Your task to perform on an android device: Show me popular games on the Play Store Image 0: 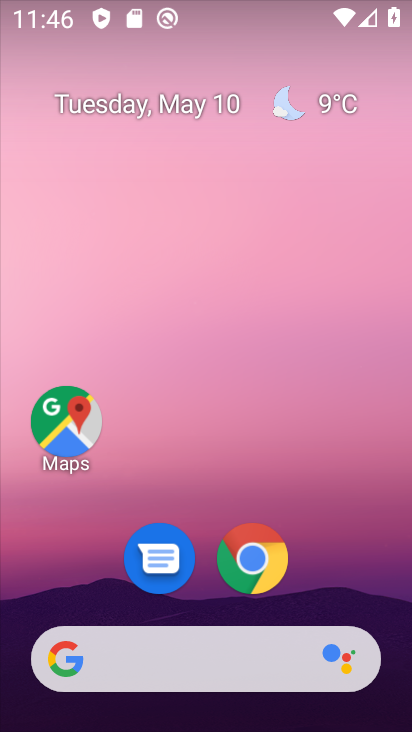
Step 0: drag from (360, 587) to (373, 209)
Your task to perform on an android device: Show me popular games on the Play Store Image 1: 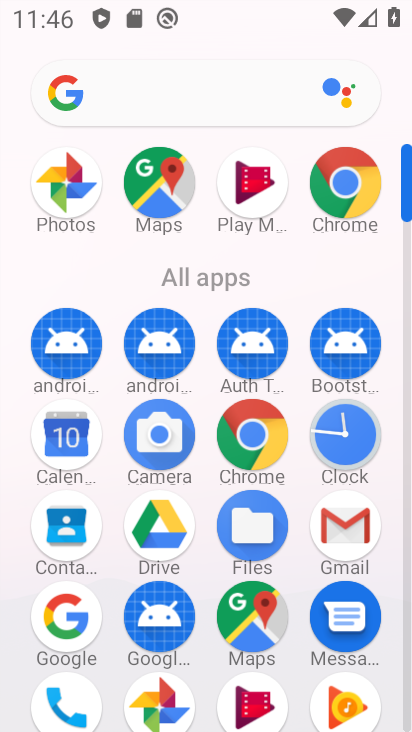
Step 1: drag from (118, 627) to (158, 287)
Your task to perform on an android device: Show me popular games on the Play Store Image 2: 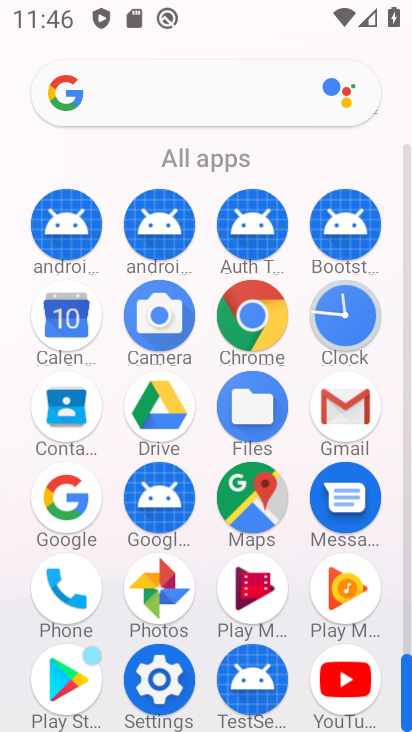
Step 2: click (56, 688)
Your task to perform on an android device: Show me popular games on the Play Store Image 3: 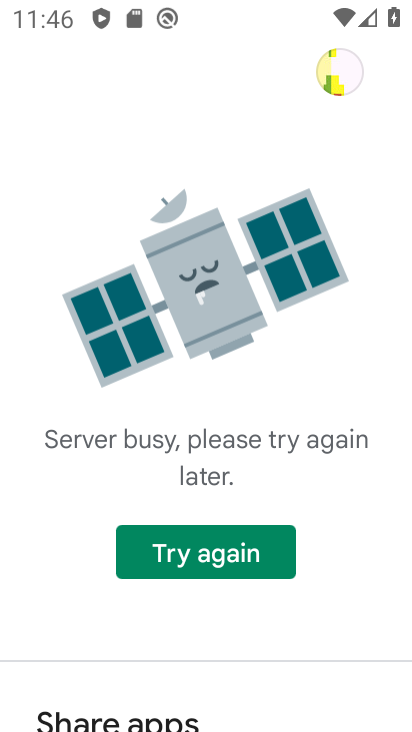
Step 3: task complete